Your task to perform on an android device: Add usb-c to usb-b to the cart on ebay, then select checkout. Image 0: 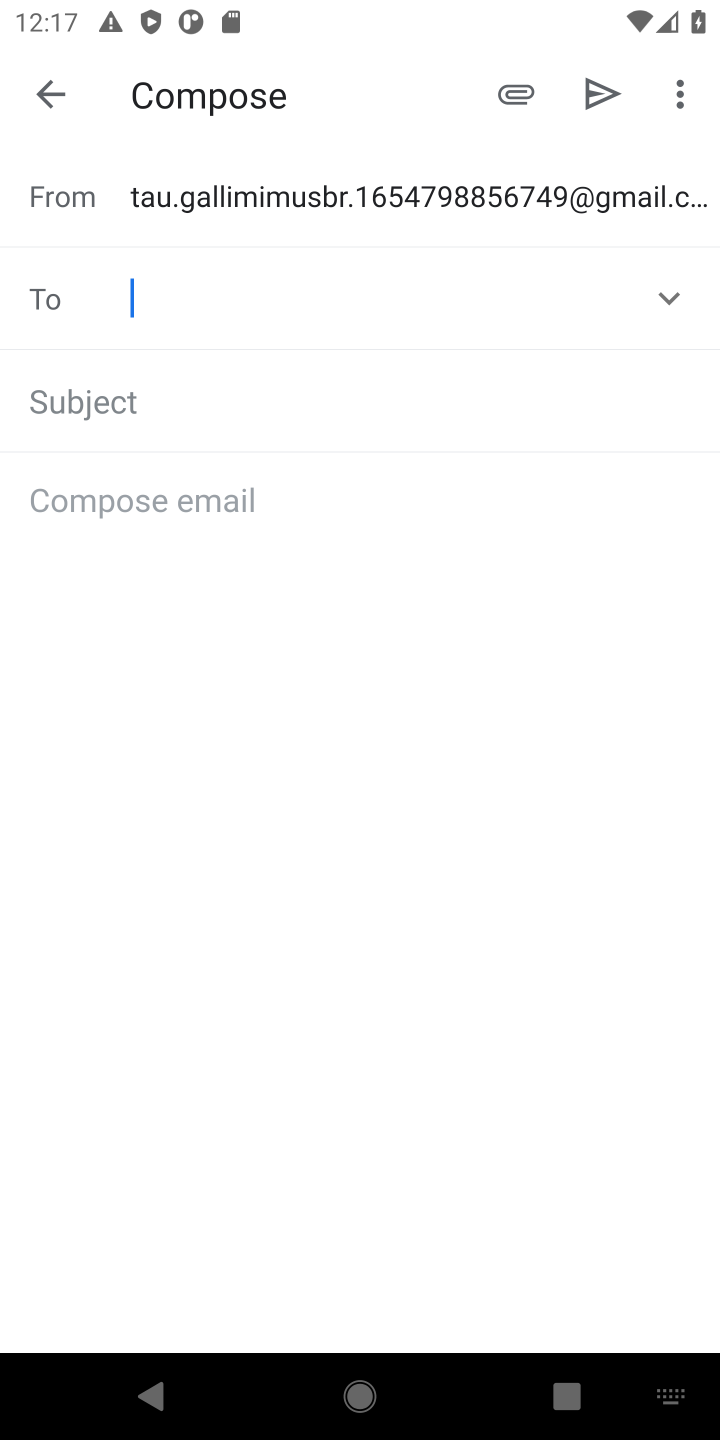
Step 0: press home button
Your task to perform on an android device: Add usb-c to usb-b to the cart on ebay, then select checkout. Image 1: 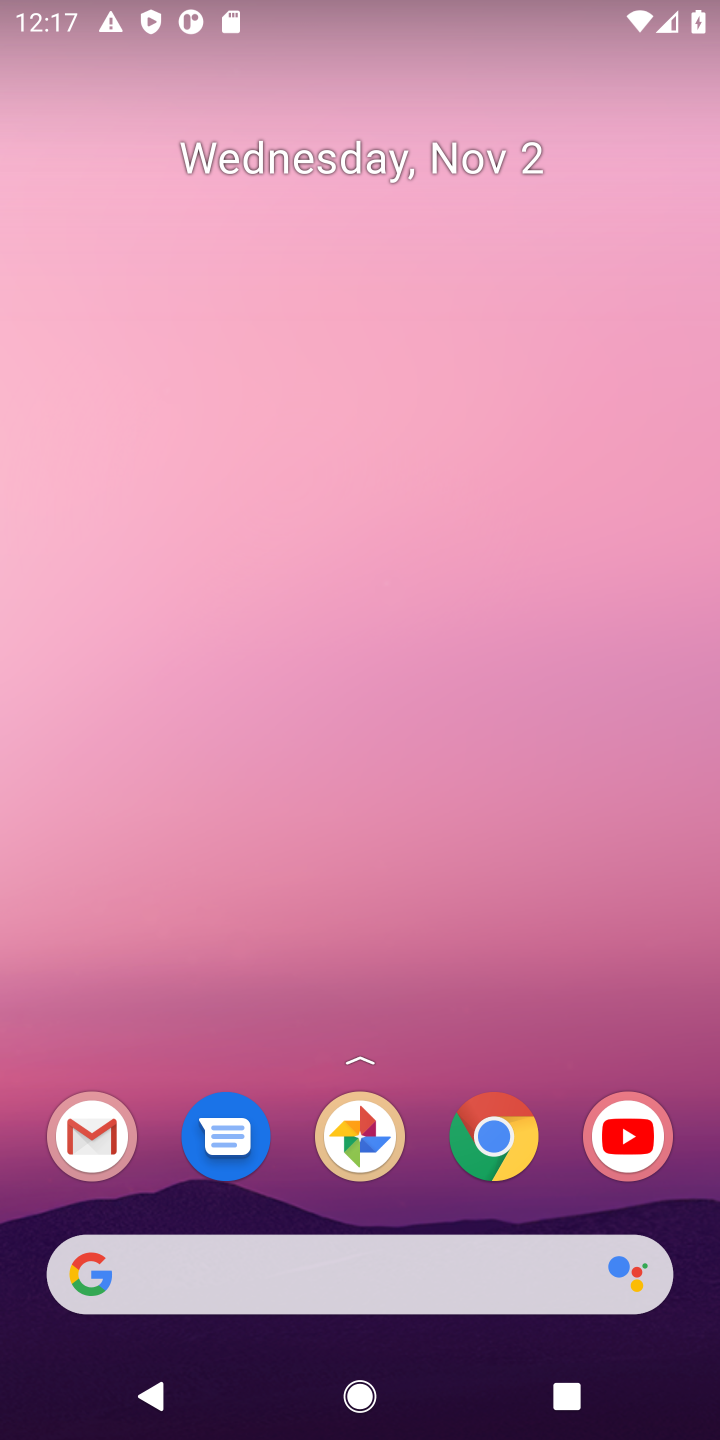
Step 1: click (502, 1140)
Your task to perform on an android device: Add usb-c to usb-b to the cart on ebay, then select checkout. Image 2: 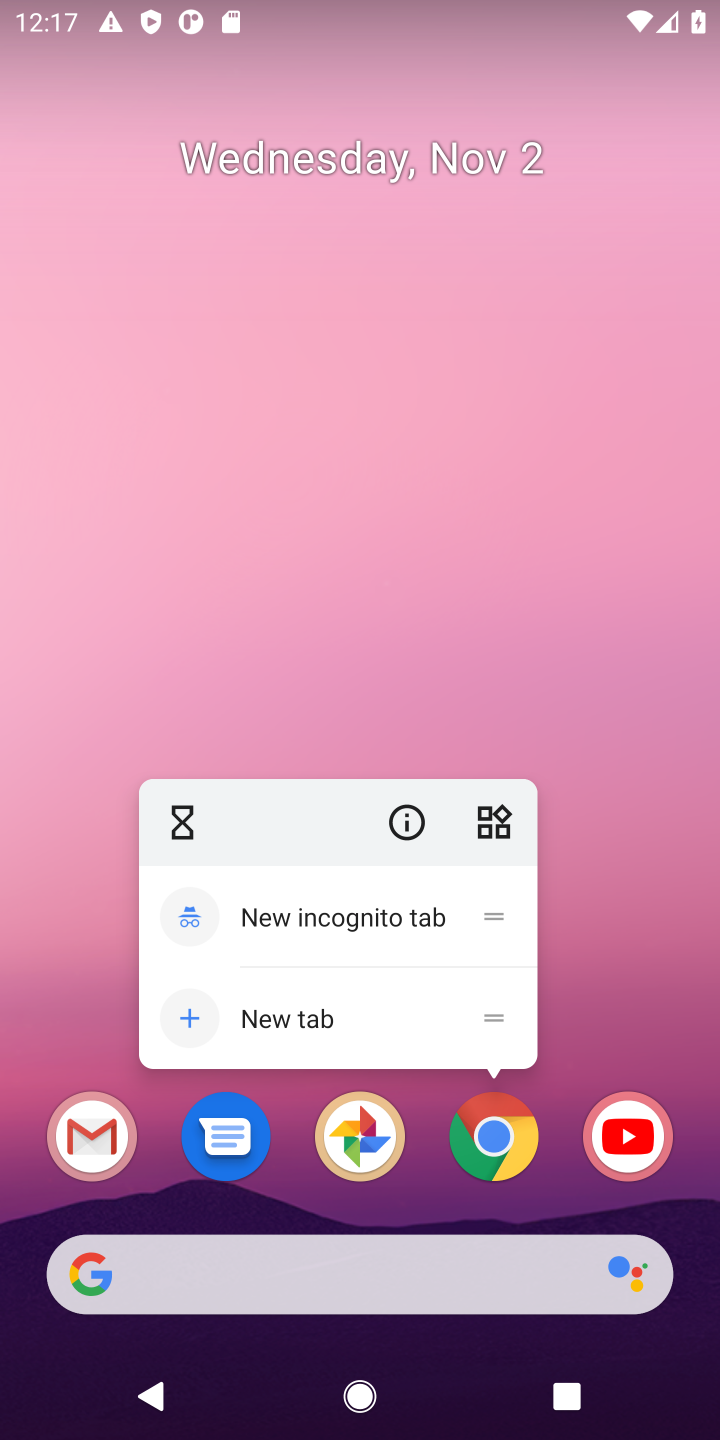
Step 2: click (486, 1156)
Your task to perform on an android device: Add usb-c to usb-b to the cart on ebay, then select checkout. Image 3: 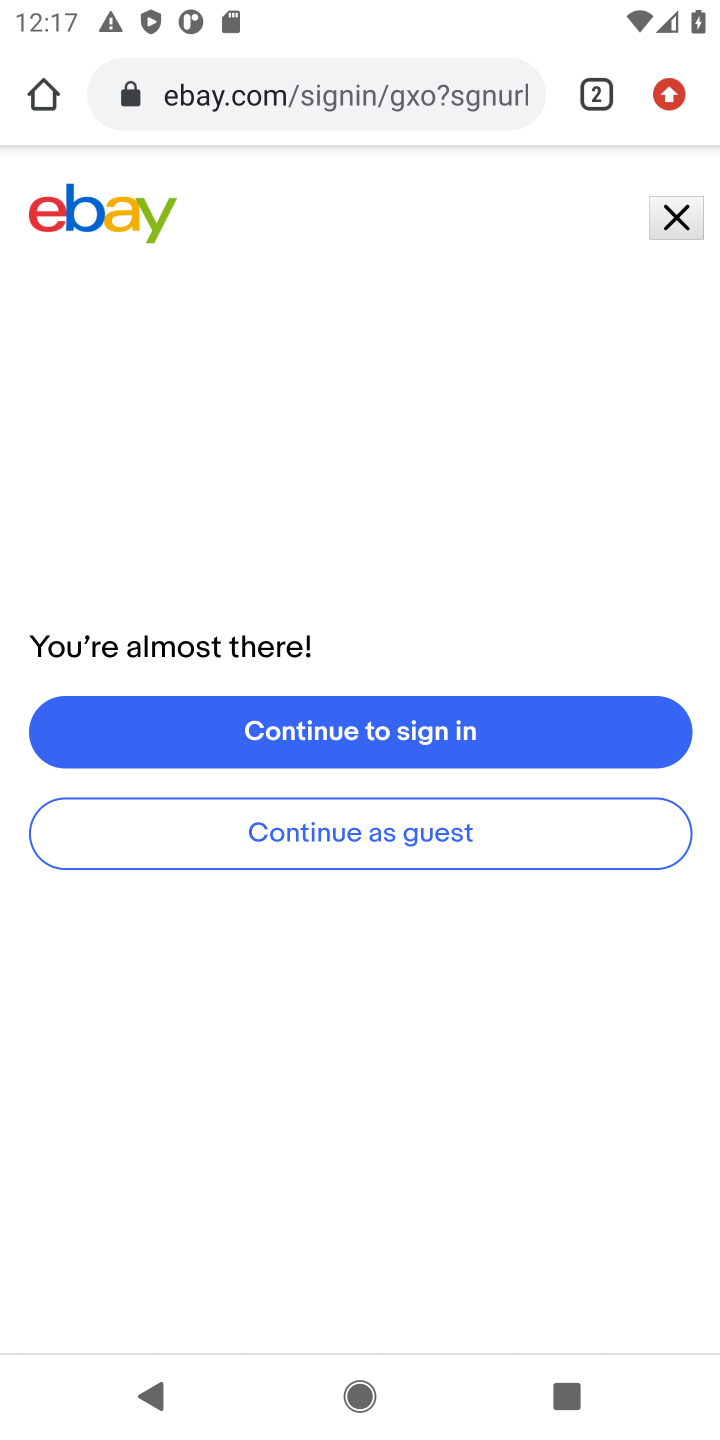
Step 3: click (319, 106)
Your task to perform on an android device: Add usb-c to usb-b to the cart on ebay, then select checkout. Image 4: 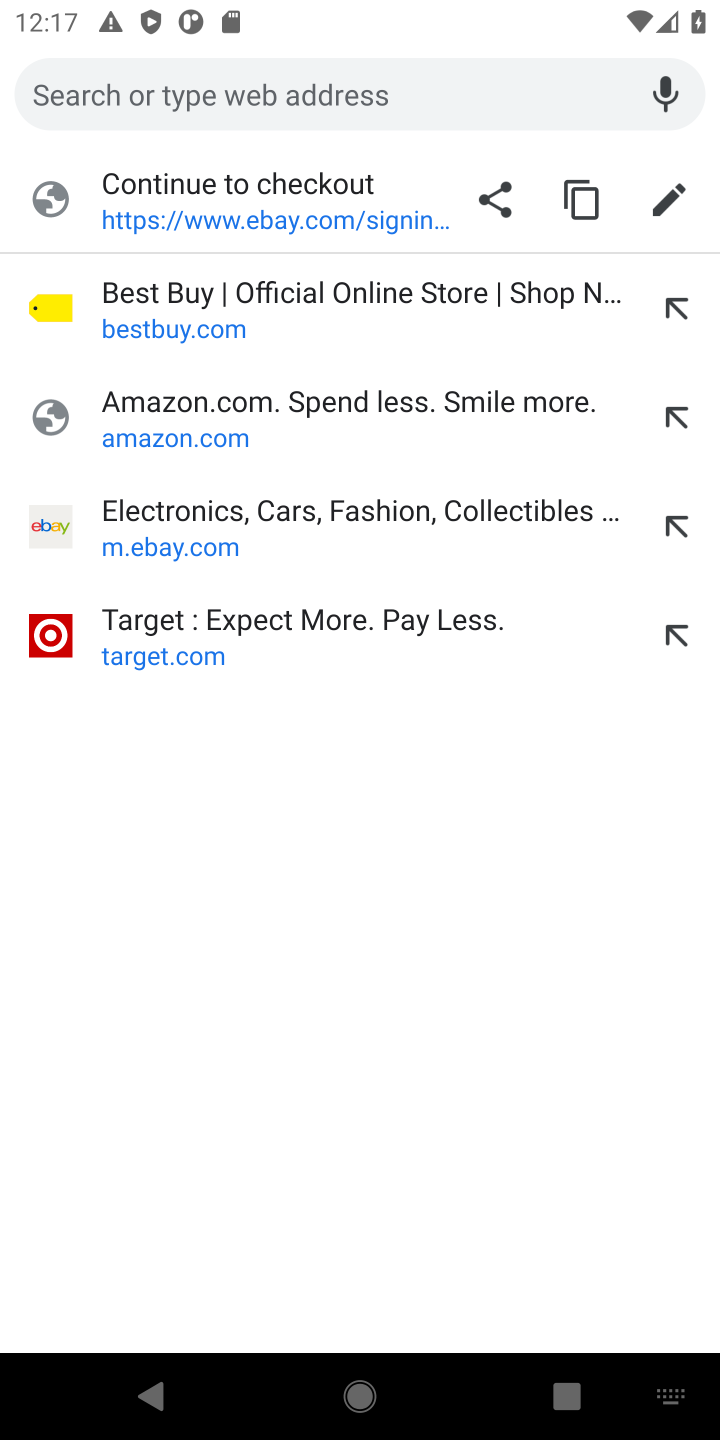
Step 4: type "ebay"
Your task to perform on an android device: Add usb-c to usb-b to the cart on ebay, then select checkout. Image 5: 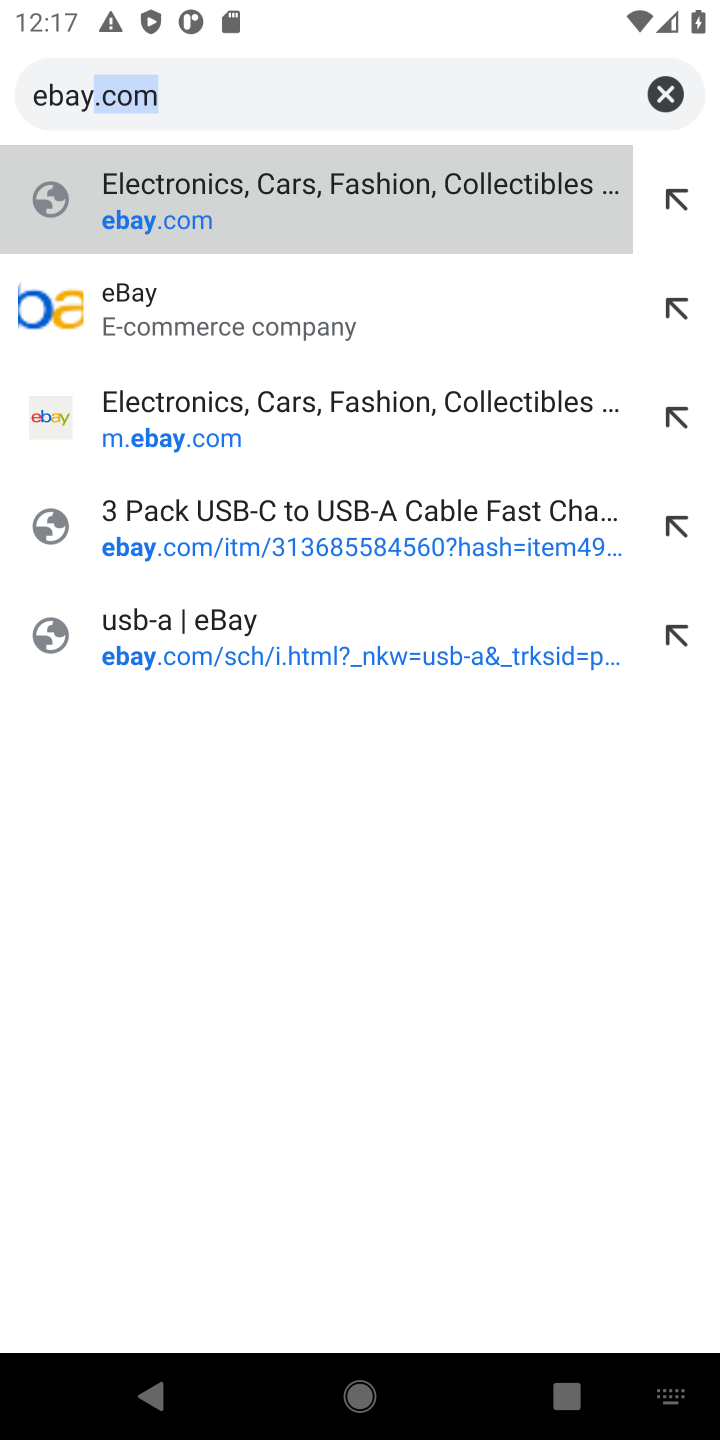
Step 5: type ""
Your task to perform on an android device: Add usb-c to usb-b to the cart on ebay, then select checkout. Image 6: 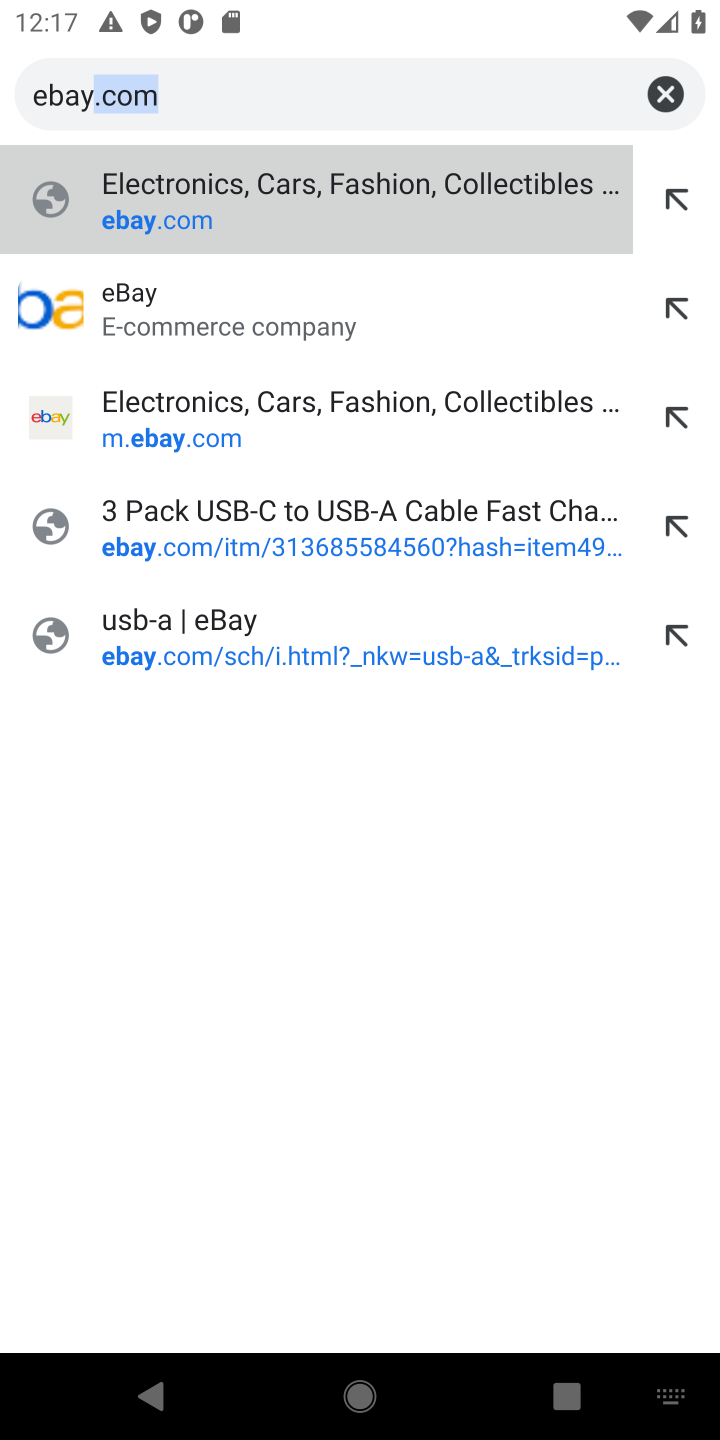
Step 6: click (208, 210)
Your task to perform on an android device: Add usb-c to usb-b to the cart on ebay, then select checkout. Image 7: 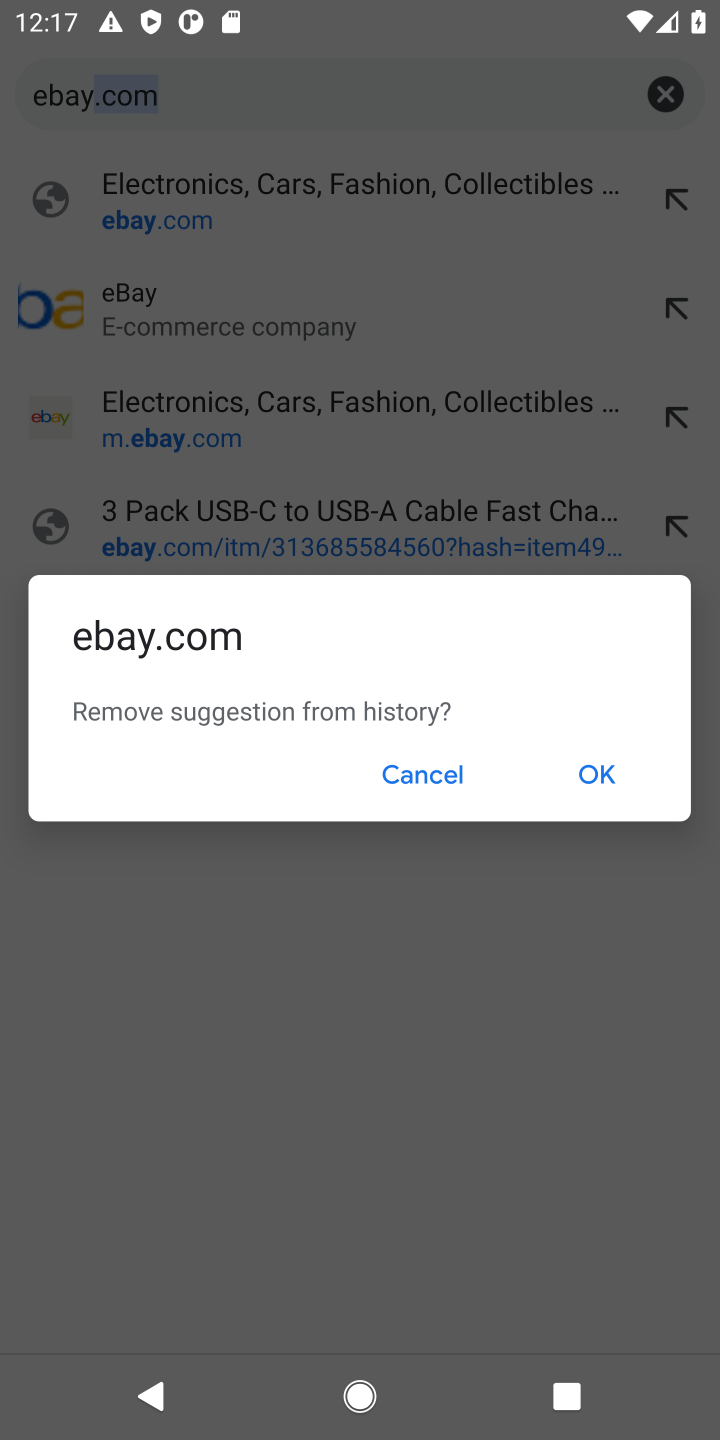
Step 7: click (614, 763)
Your task to perform on an android device: Add usb-c to usb-b to the cart on ebay, then select checkout. Image 8: 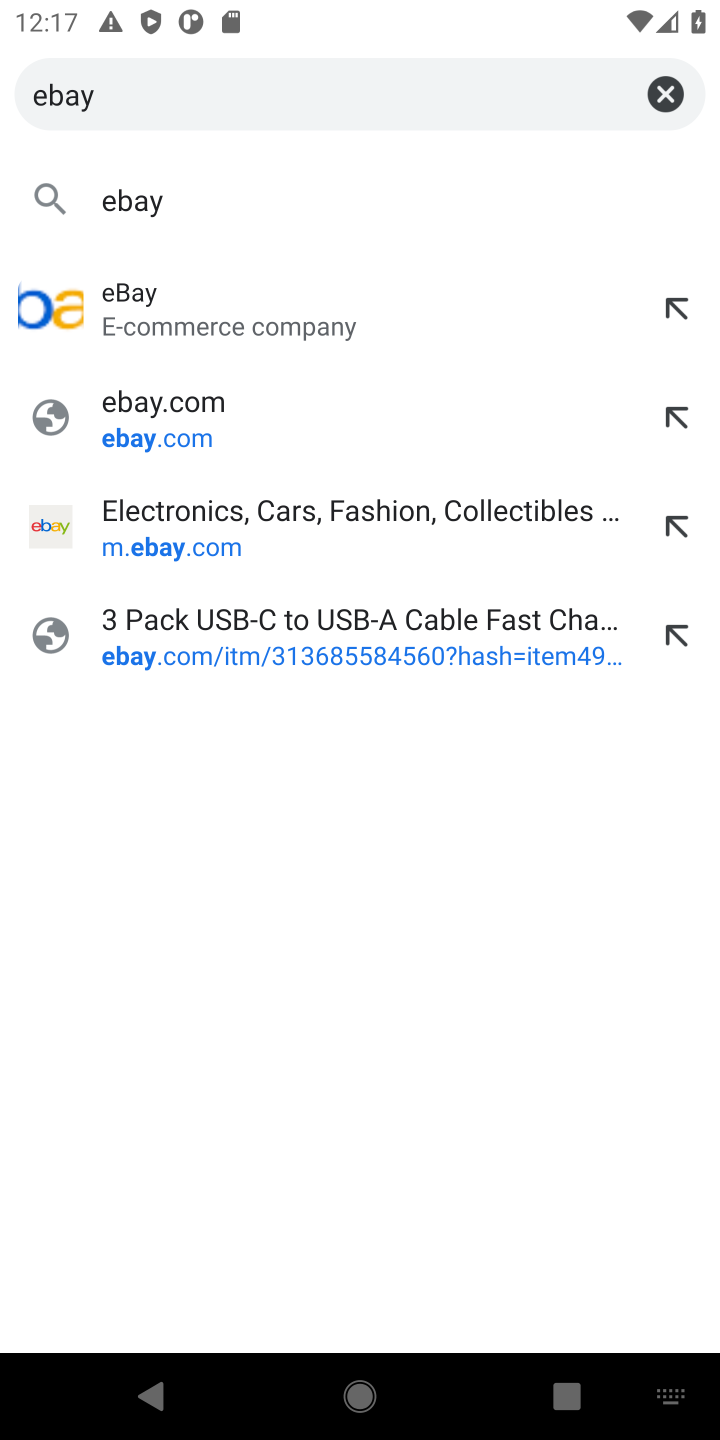
Step 8: click (207, 350)
Your task to perform on an android device: Add usb-c to usb-b to the cart on ebay, then select checkout. Image 9: 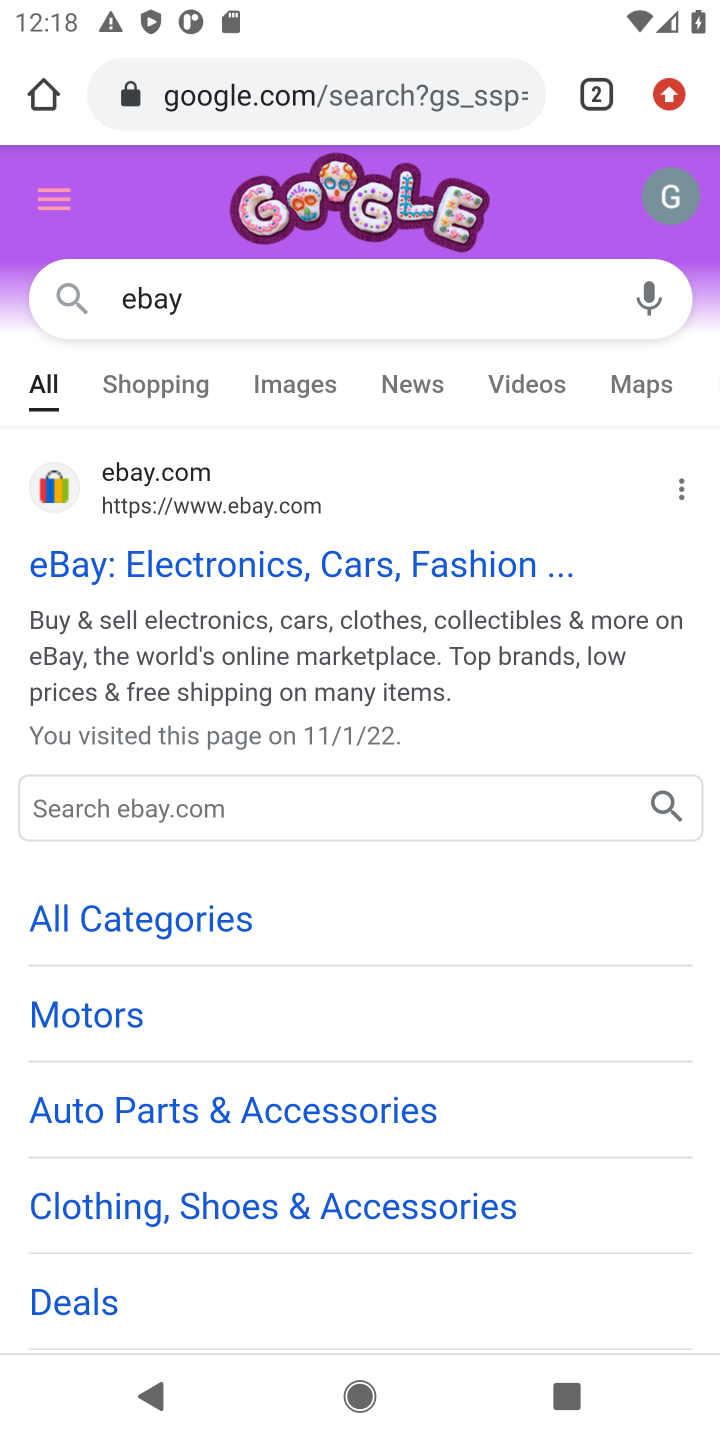
Step 9: click (174, 552)
Your task to perform on an android device: Add usb-c to usb-b to the cart on ebay, then select checkout. Image 10: 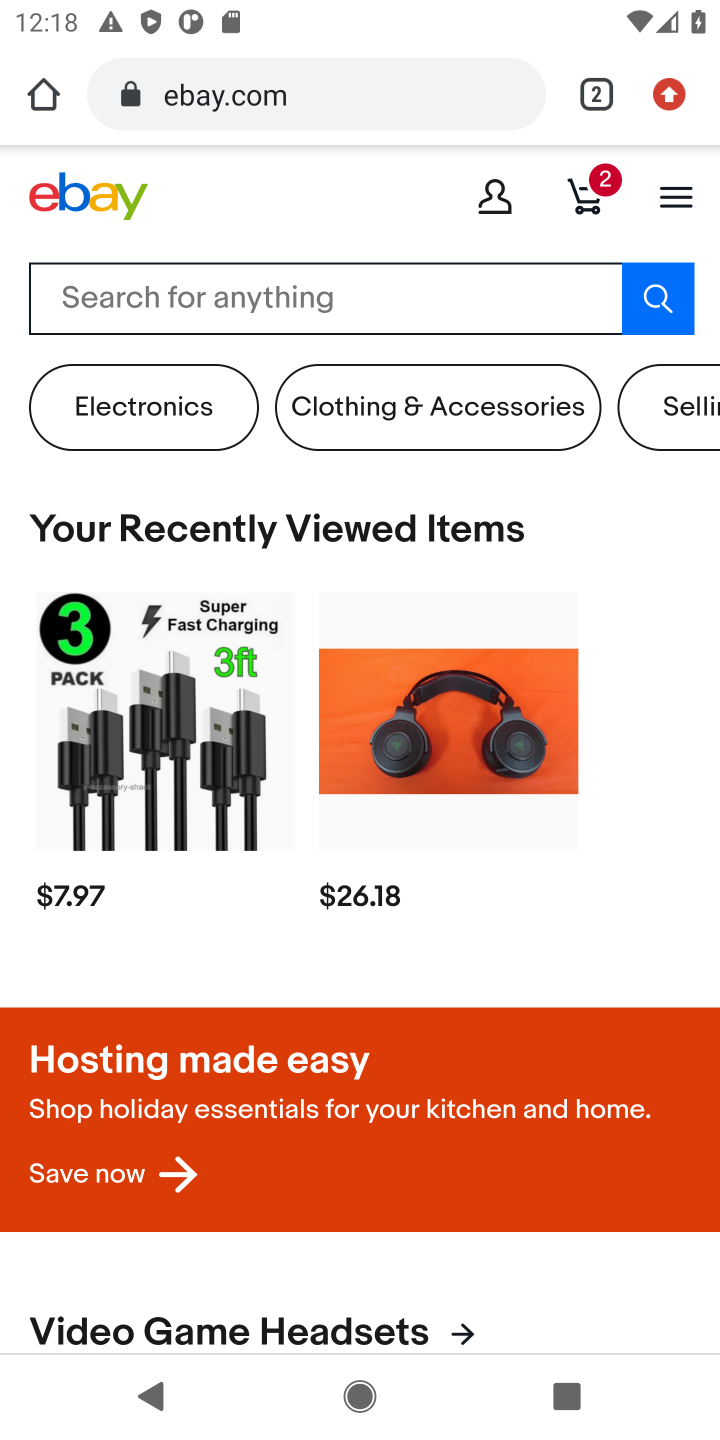
Step 10: click (336, 306)
Your task to perform on an android device: Add usb-c to usb-b to the cart on ebay, then select checkout. Image 11: 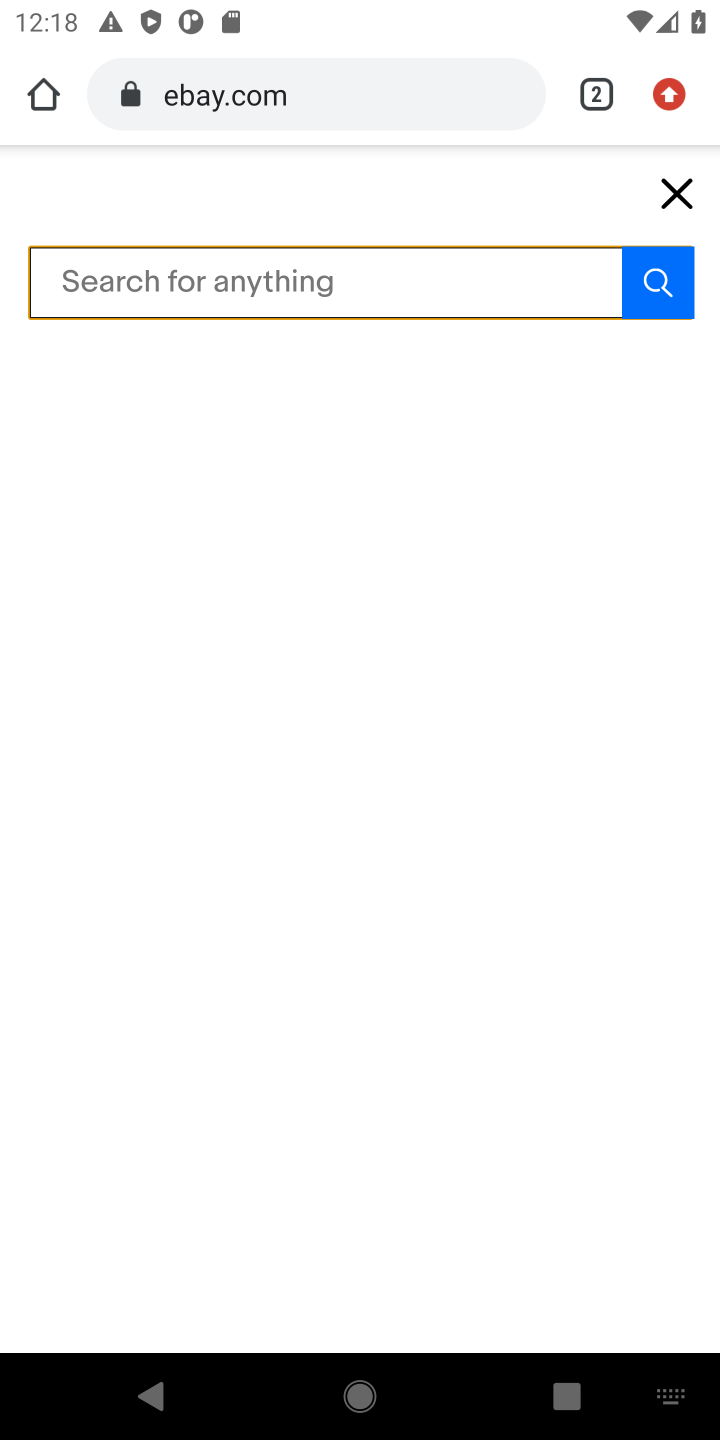
Step 11: type "usb-c to usb-b"
Your task to perform on an android device: Add usb-c to usb-b to the cart on ebay, then select checkout. Image 12: 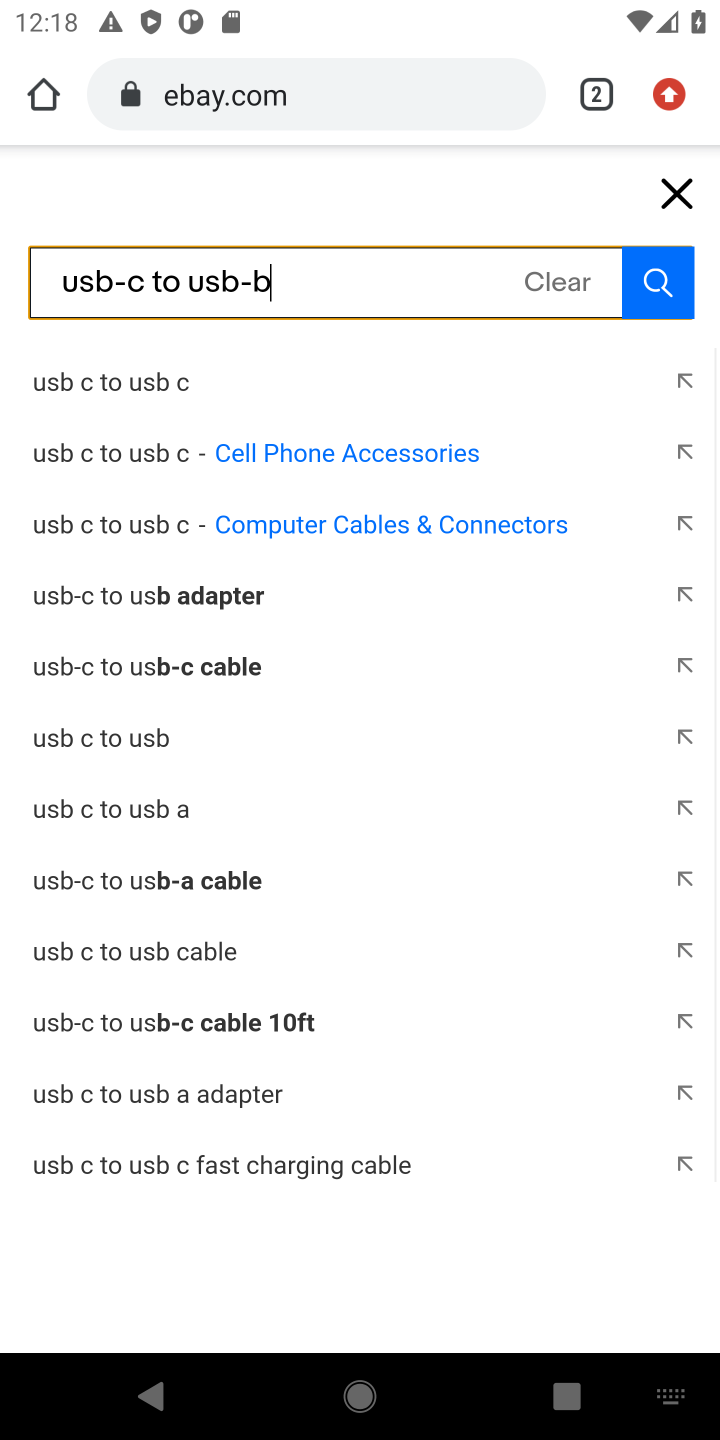
Step 12: type ""
Your task to perform on an android device: Add usb-c to usb-b to the cart on ebay, then select checkout. Image 13: 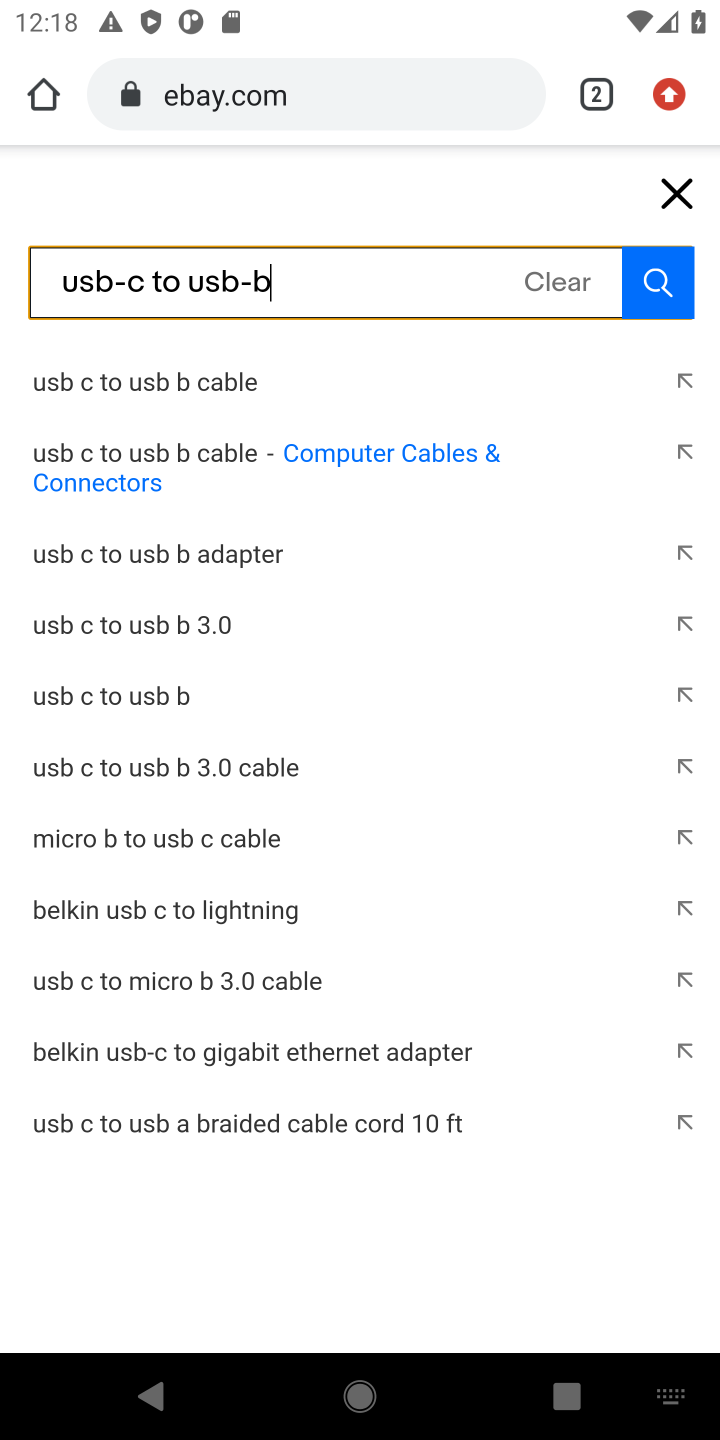
Step 13: click (666, 287)
Your task to perform on an android device: Add usb-c to usb-b to the cart on ebay, then select checkout. Image 14: 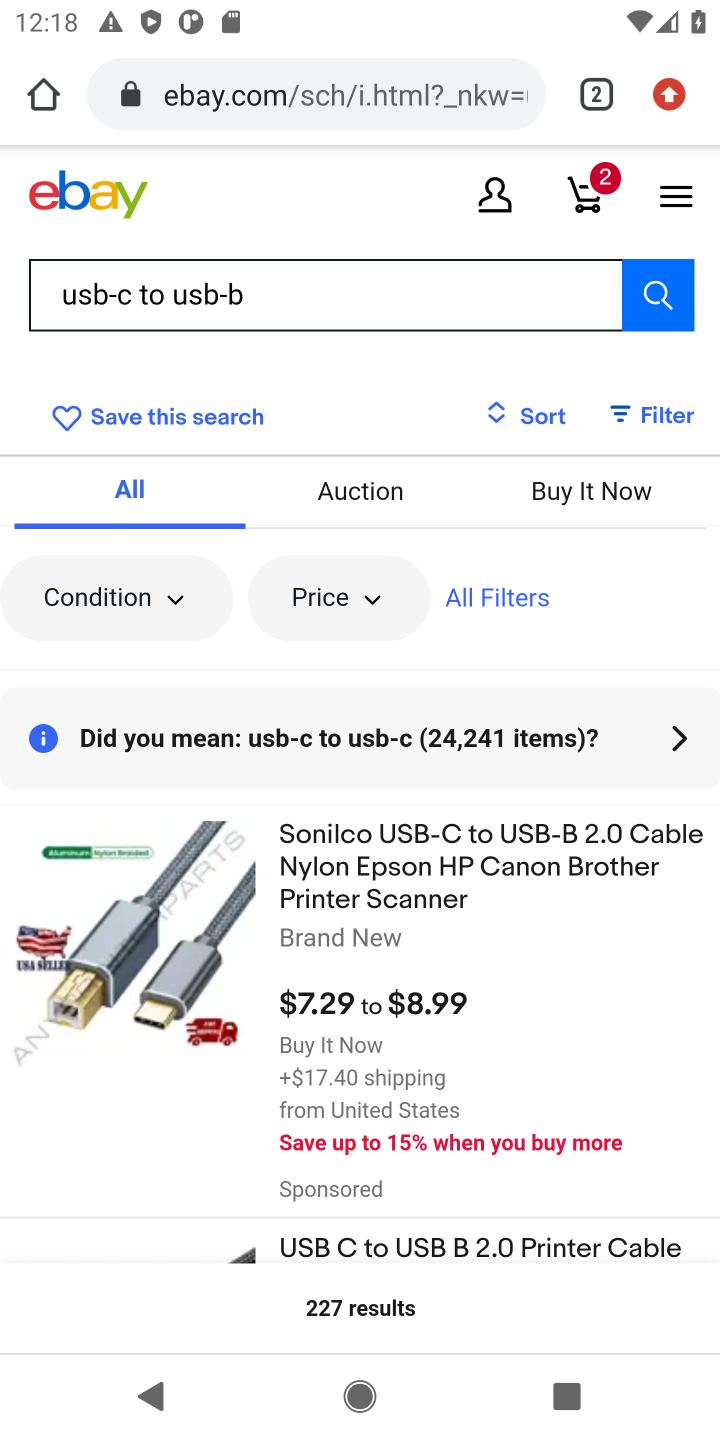
Step 14: click (307, 875)
Your task to perform on an android device: Add usb-c to usb-b to the cart on ebay, then select checkout. Image 15: 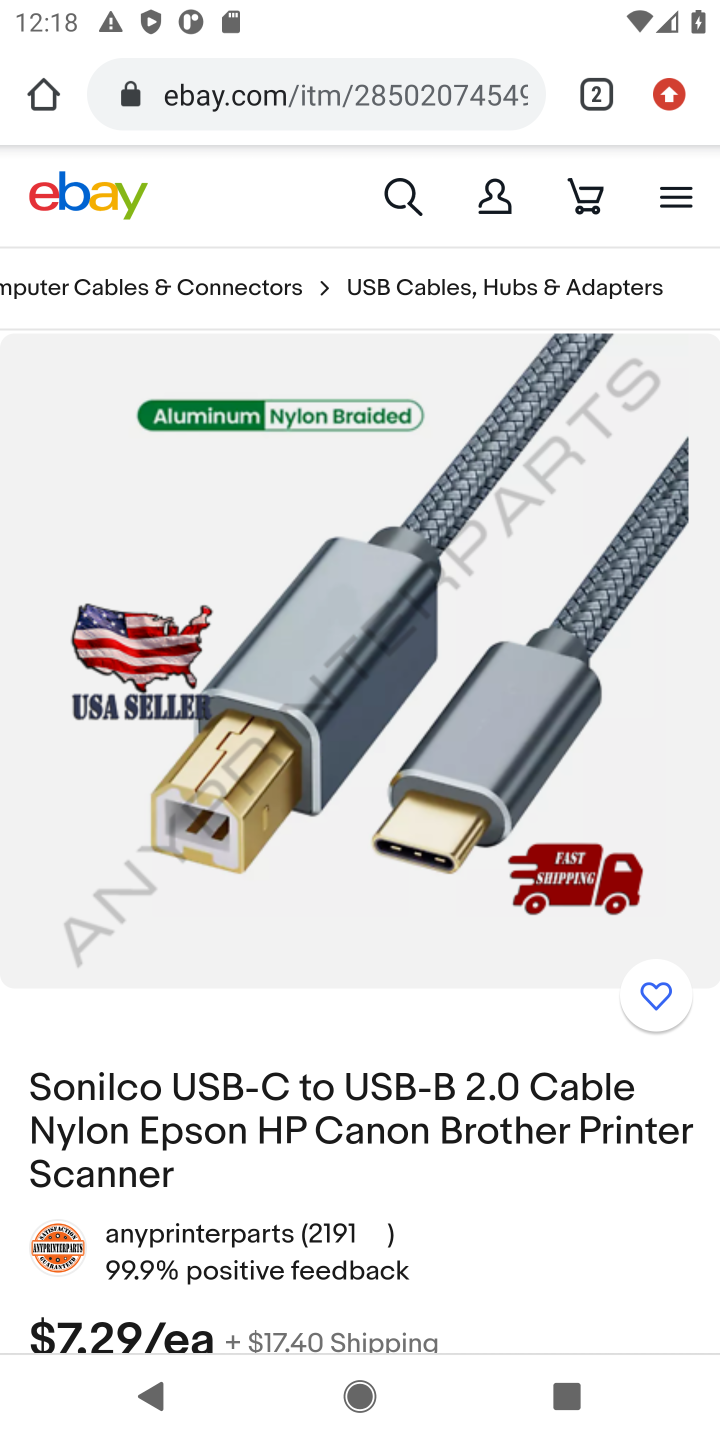
Step 15: drag from (368, 982) to (425, 519)
Your task to perform on an android device: Add usb-c to usb-b to the cart on ebay, then select checkout. Image 16: 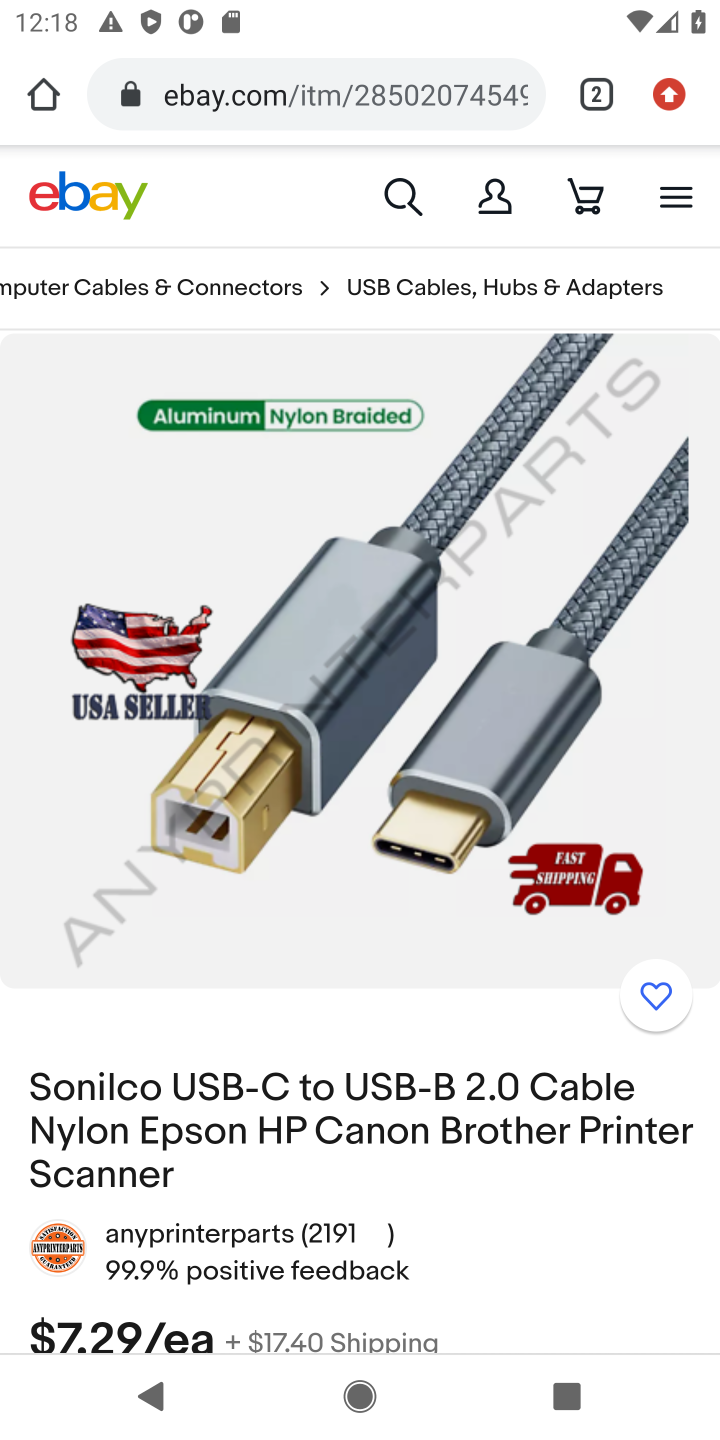
Step 16: drag from (458, 827) to (510, 430)
Your task to perform on an android device: Add usb-c to usb-b to the cart on ebay, then select checkout. Image 17: 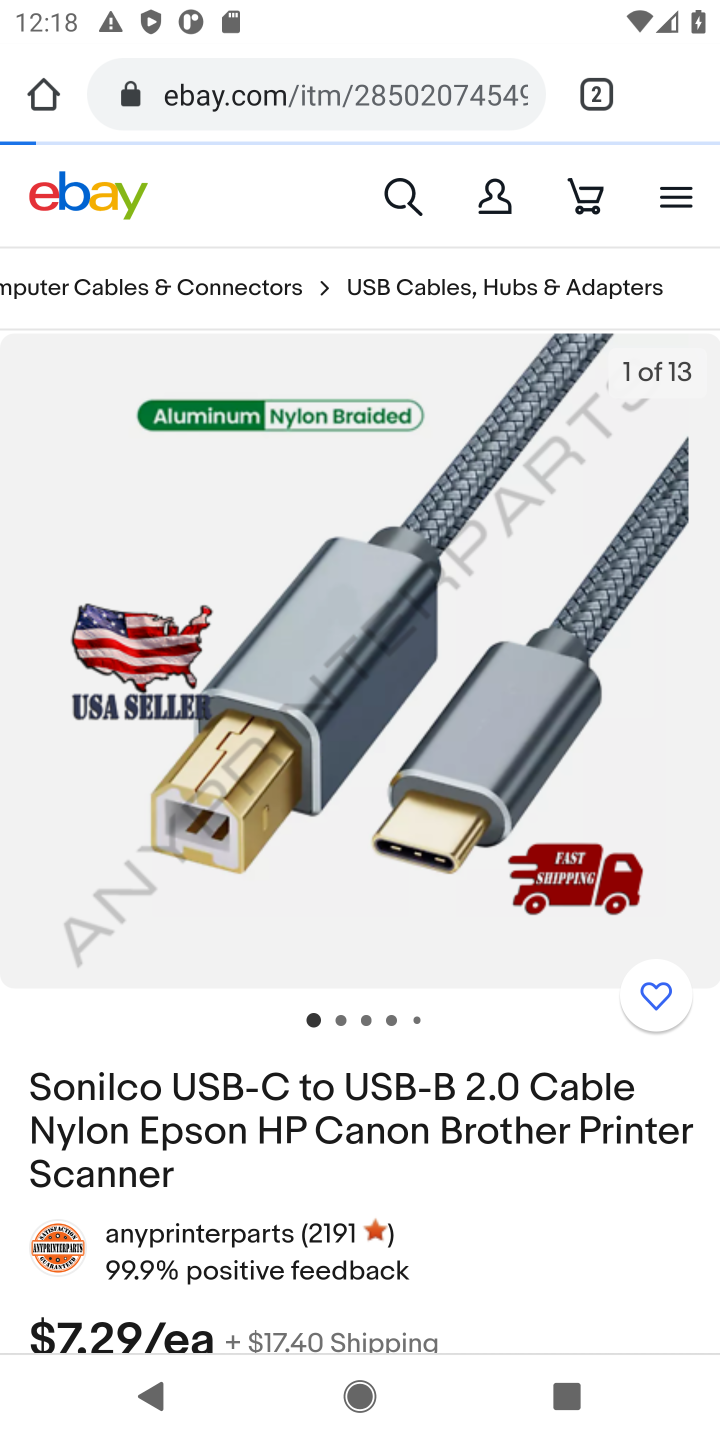
Step 17: drag from (525, 1013) to (566, 468)
Your task to perform on an android device: Add usb-c to usb-b to the cart on ebay, then select checkout. Image 18: 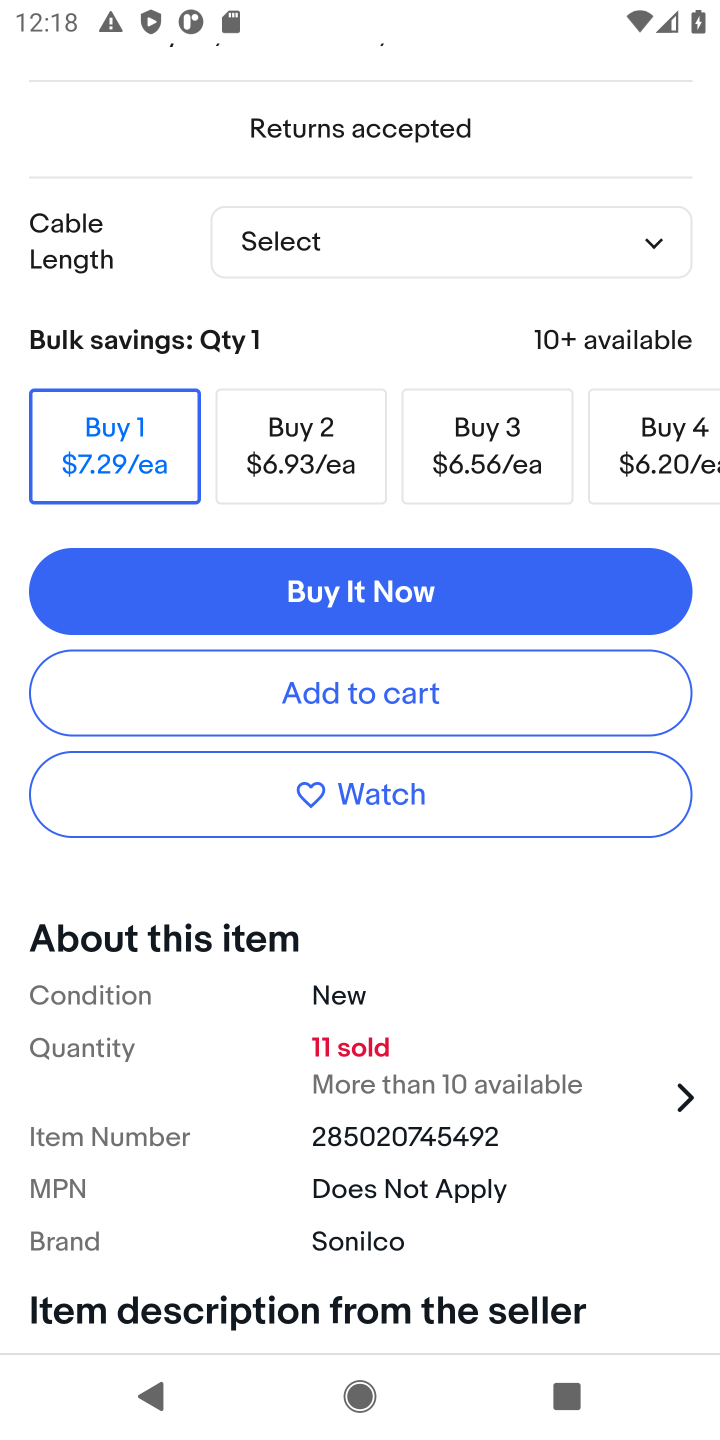
Step 18: click (346, 713)
Your task to perform on an android device: Add usb-c to usb-b to the cart on ebay, then select checkout. Image 19: 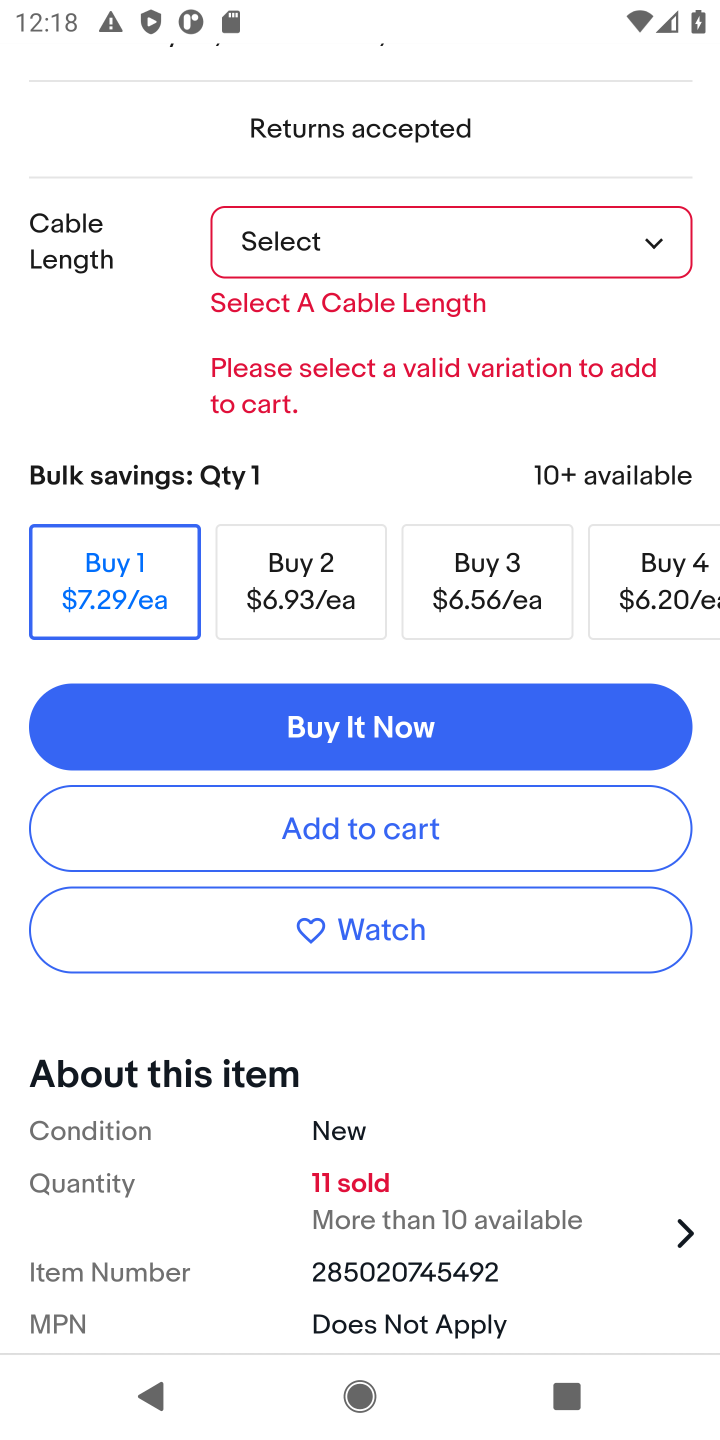
Step 19: click (340, 799)
Your task to perform on an android device: Add usb-c to usb-b to the cart on ebay, then select checkout. Image 20: 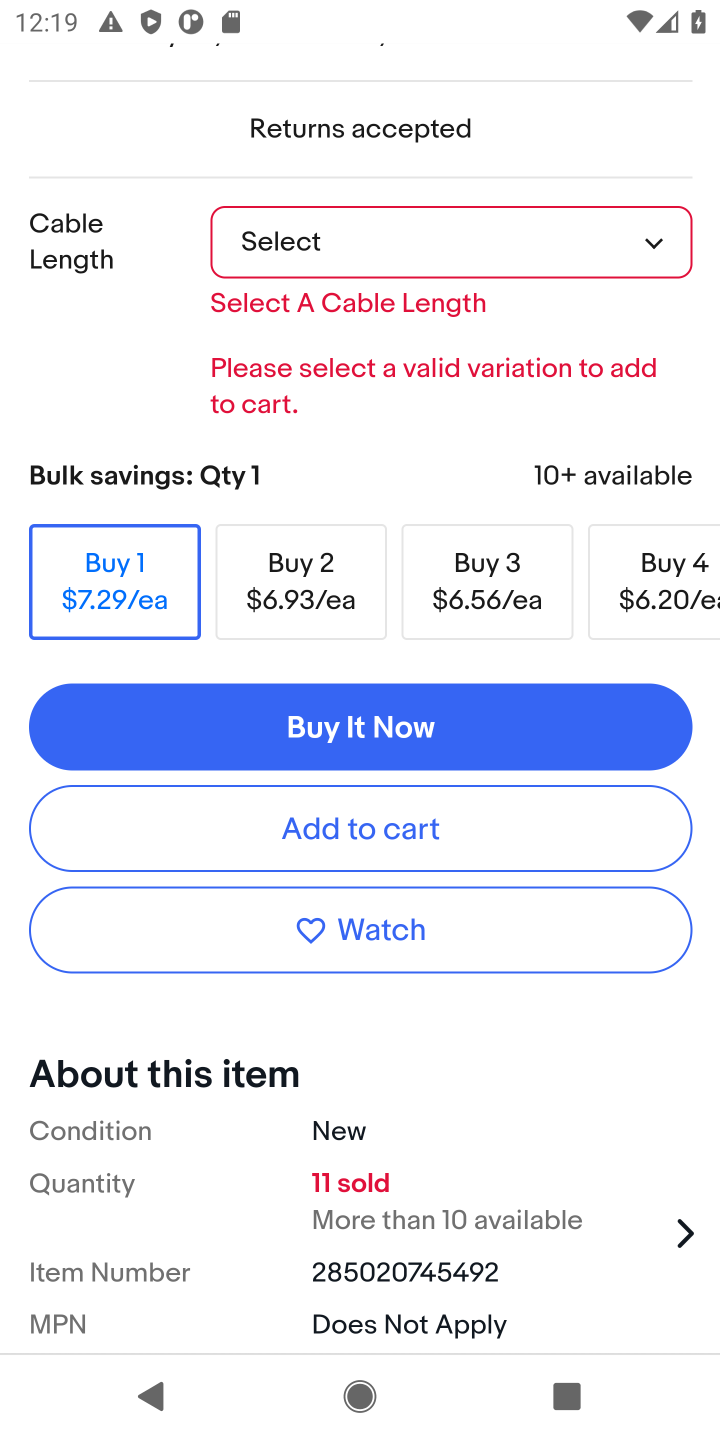
Step 20: click (340, 837)
Your task to perform on an android device: Add usb-c to usb-b to the cart on ebay, then select checkout. Image 21: 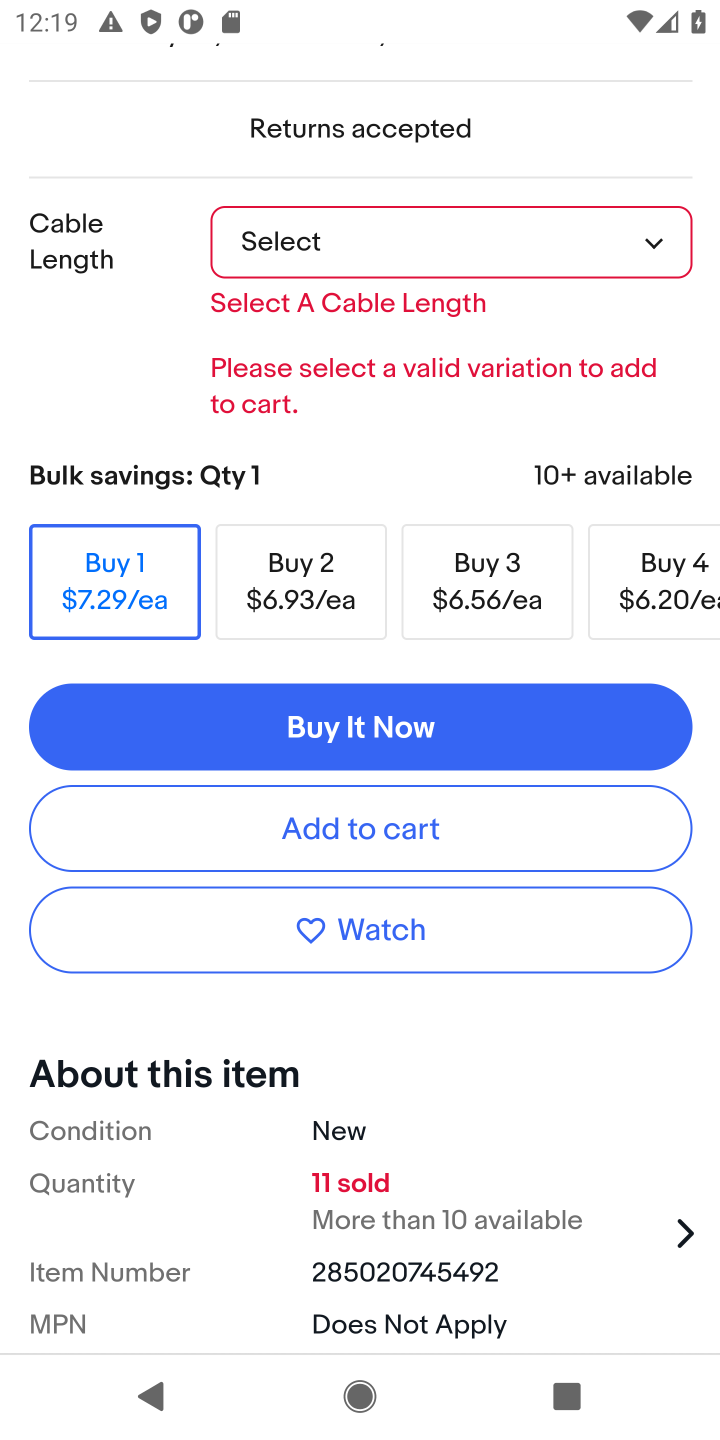
Step 21: click (340, 837)
Your task to perform on an android device: Add usb-c to usb-b to the cart on ebay, then select checkout. Image 22: 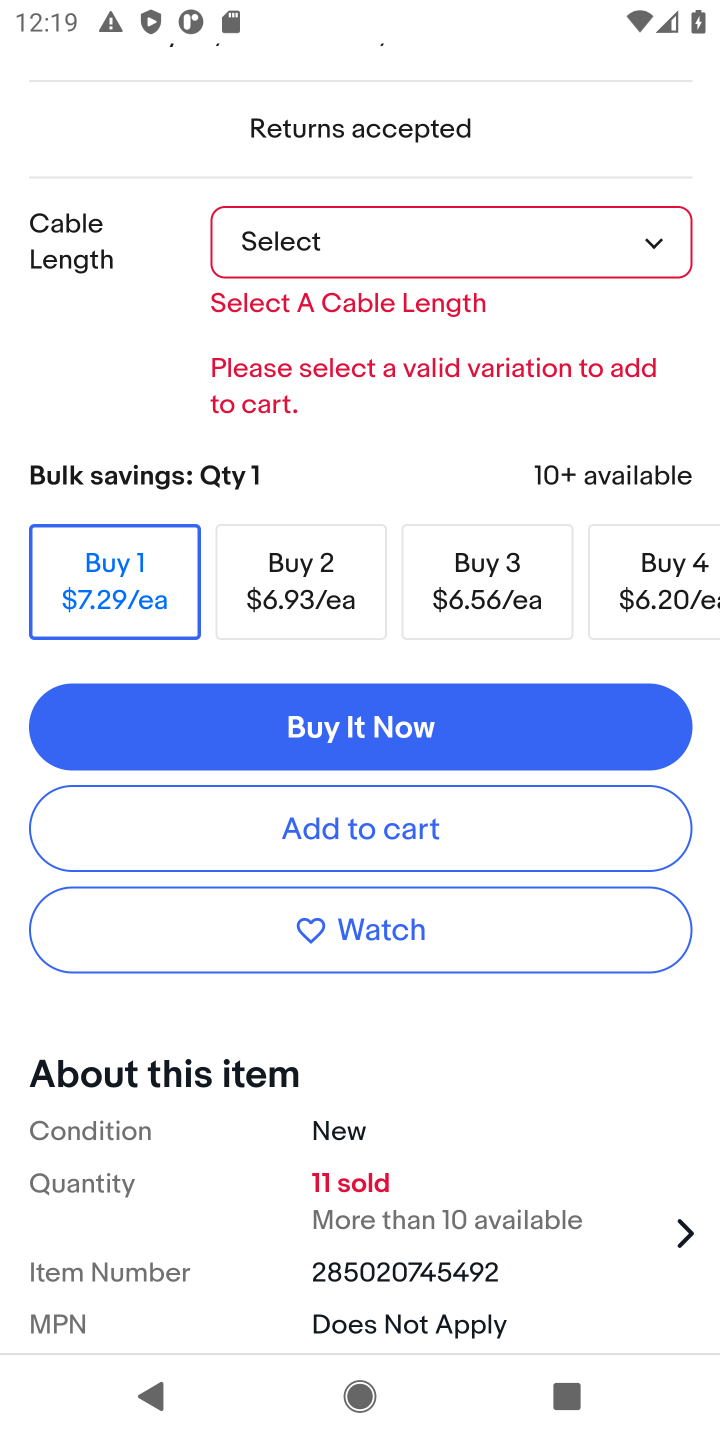
Step 22: click (462, 808)
Your task to perform on an android device: Add usb-c to usb-b to the cart on ebay, then select checkout. Image 23: 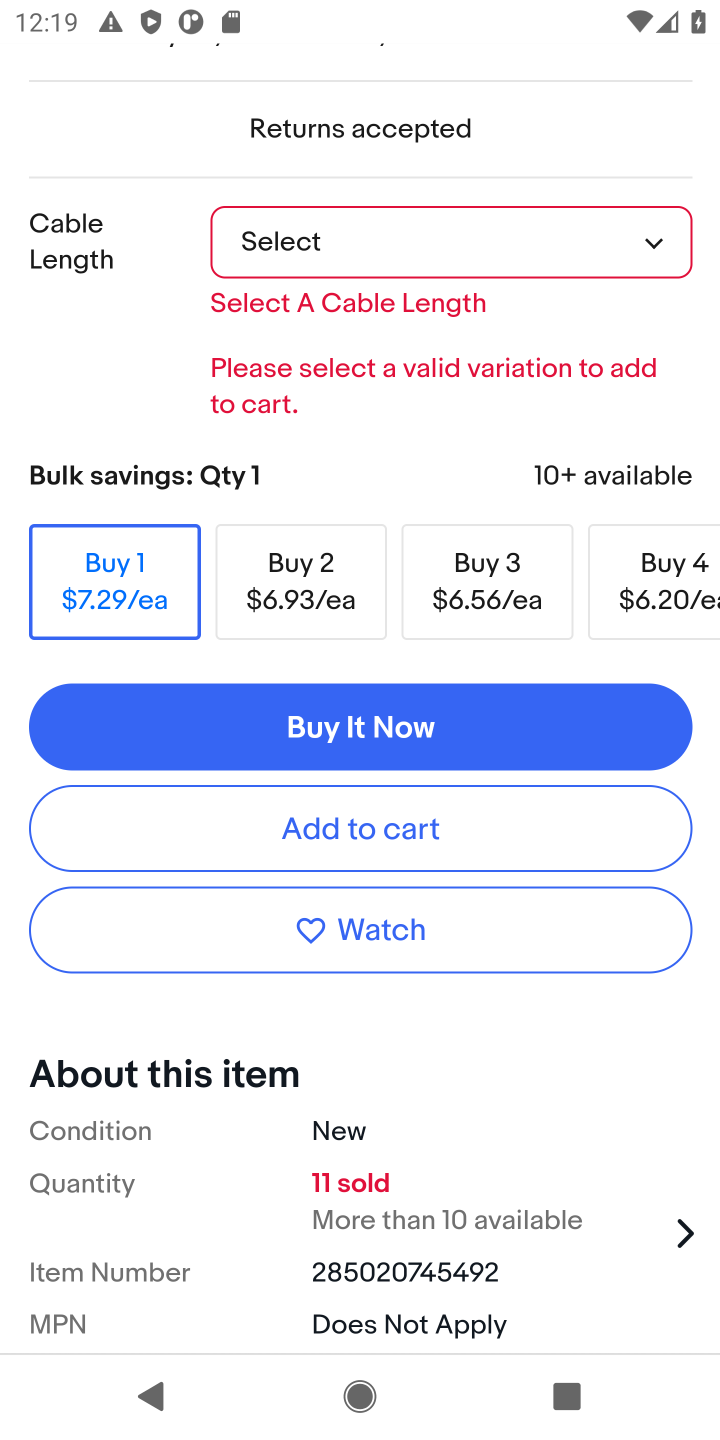
Step 23: click (452, 831)
Your task to perform on an android device: Add usb-c to usb-b to the cart on ebay, then select checkout. Image 24: 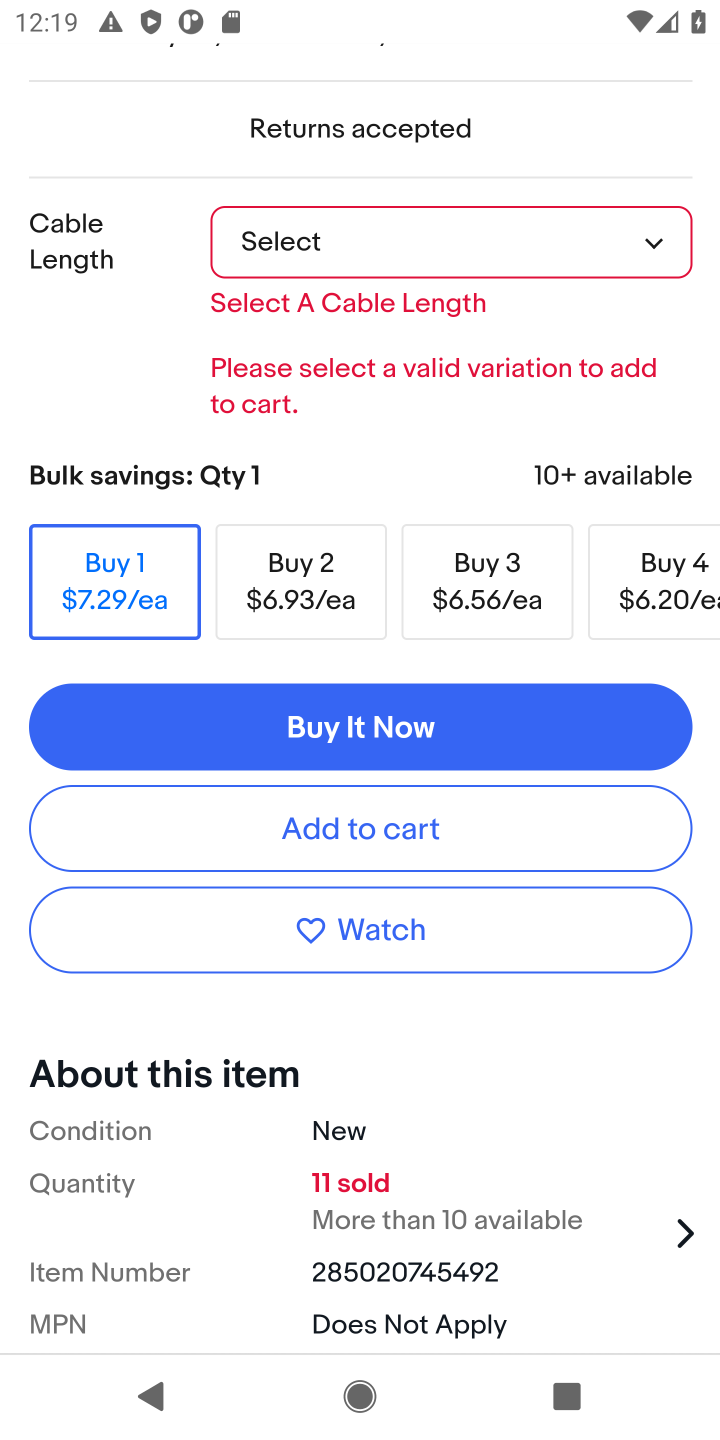
Step 24: click (533, 258)
Your task to perform on an android device: Add usb-c to usb-b to the cart on ebay, then select checkout. Image 25: 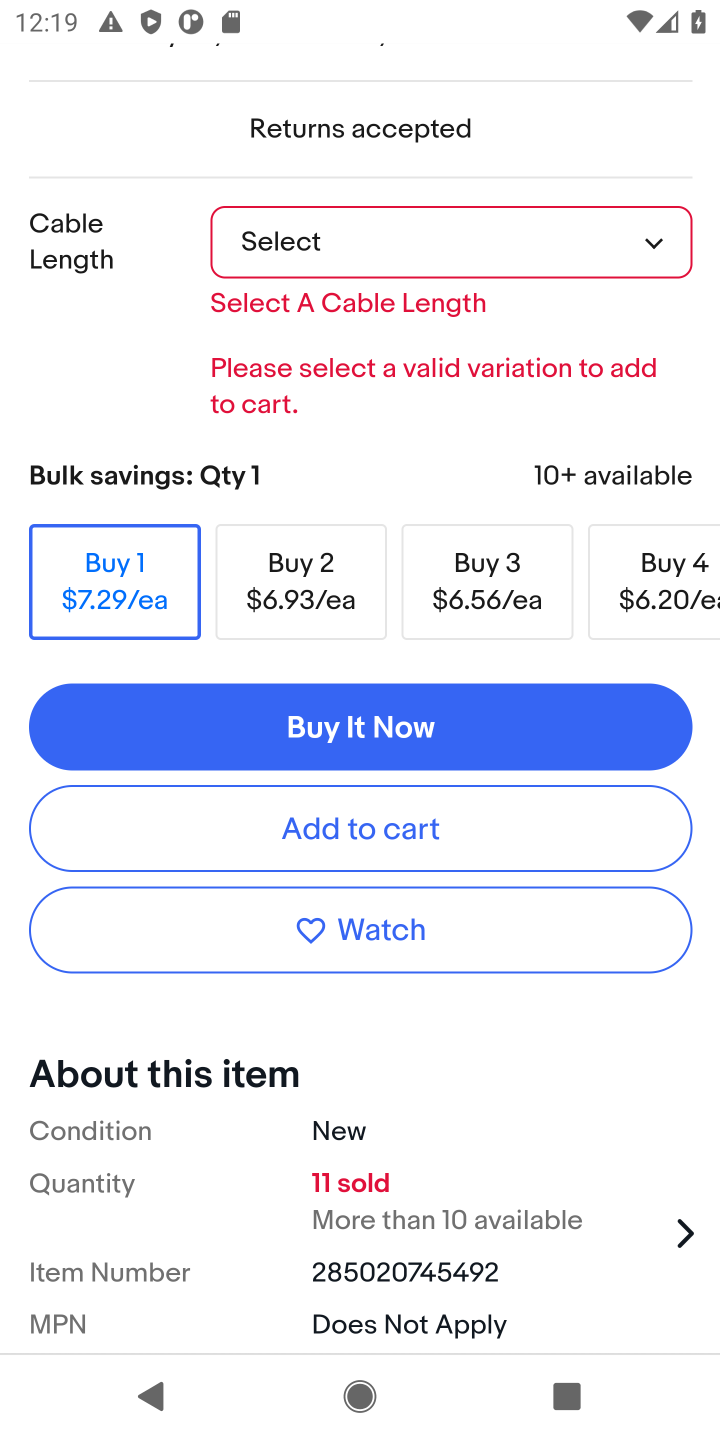
Step 25: click (533, 258)
Your task to perform on an android device: Add usb-c to usb-b to the cart on ebay, then select checkout. Image 26: 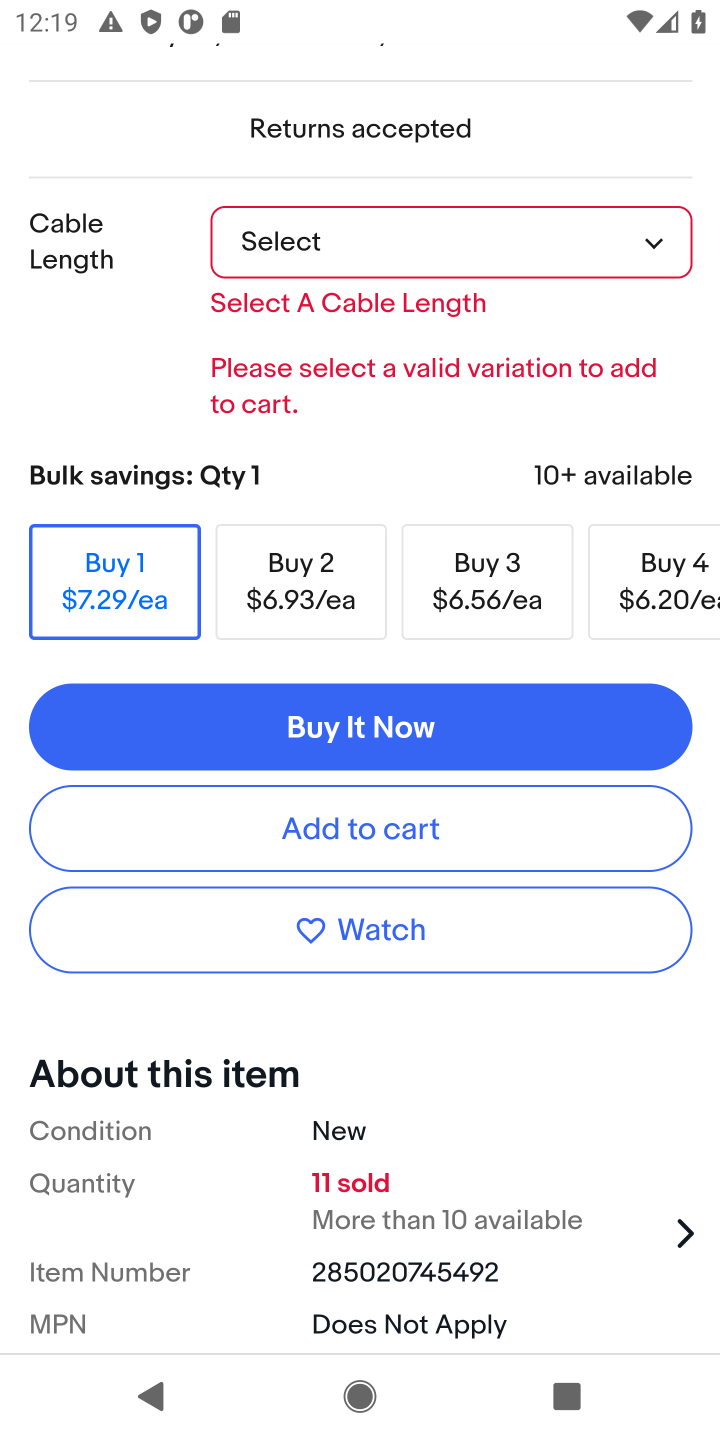
Step 26: click (609, 247)
Your task to perform on an android device: Add usb-c to usb-b to the cart on ebay, then select checkout. Image 27: 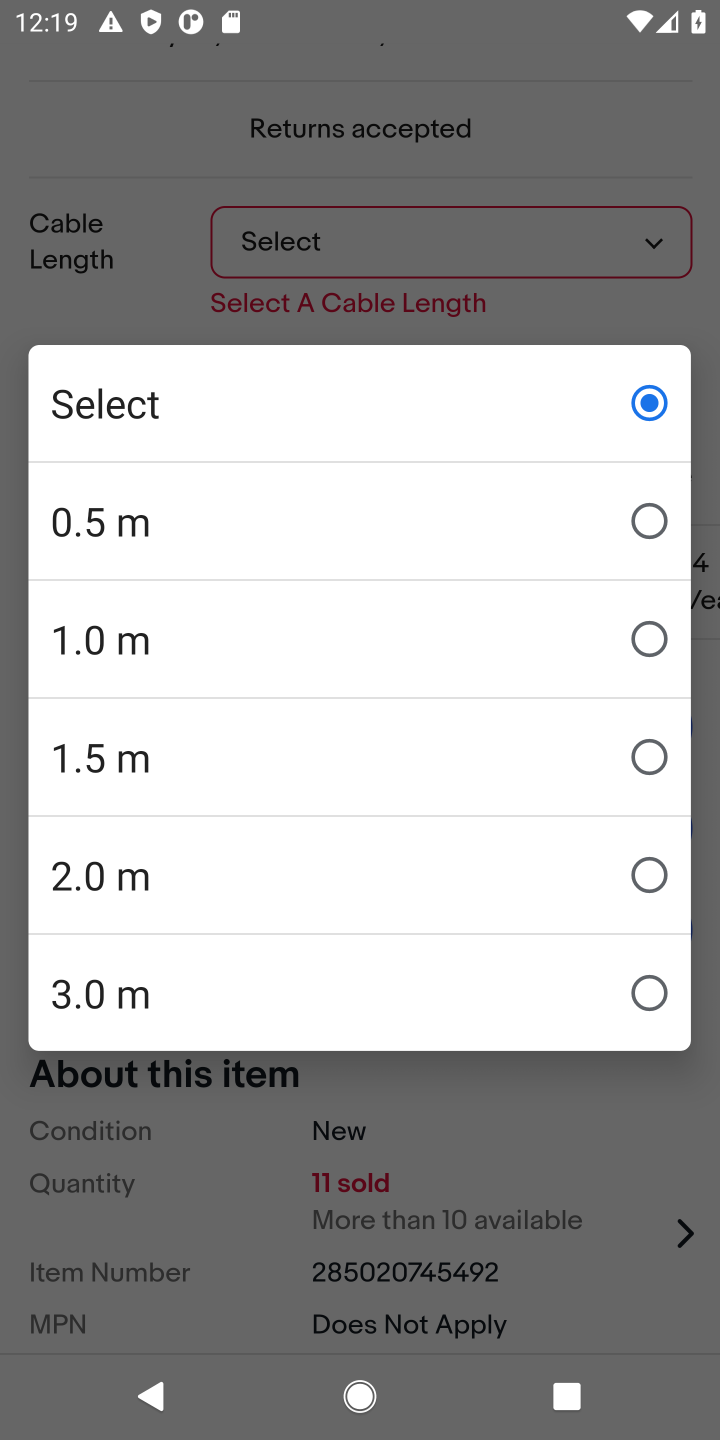
Step 27: click (340, 538)
Your task to perform on an android device: Add usb-c to usb-b to the cart on ebay, then select checkout. Image 28: 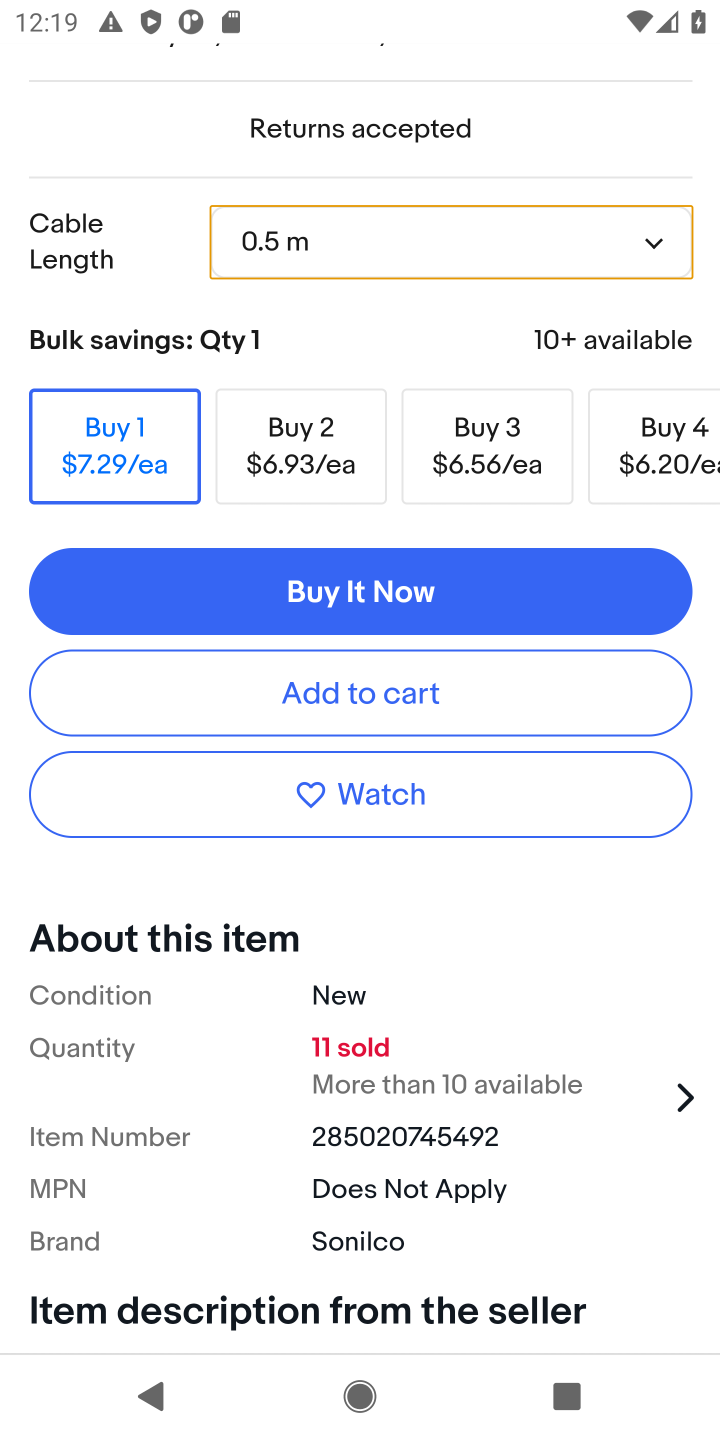
Step 28: click (333, 690)
Your task to perform on an android device: Add usb-c to usb-b to the cart on ebay, then select checkout. Image 29: 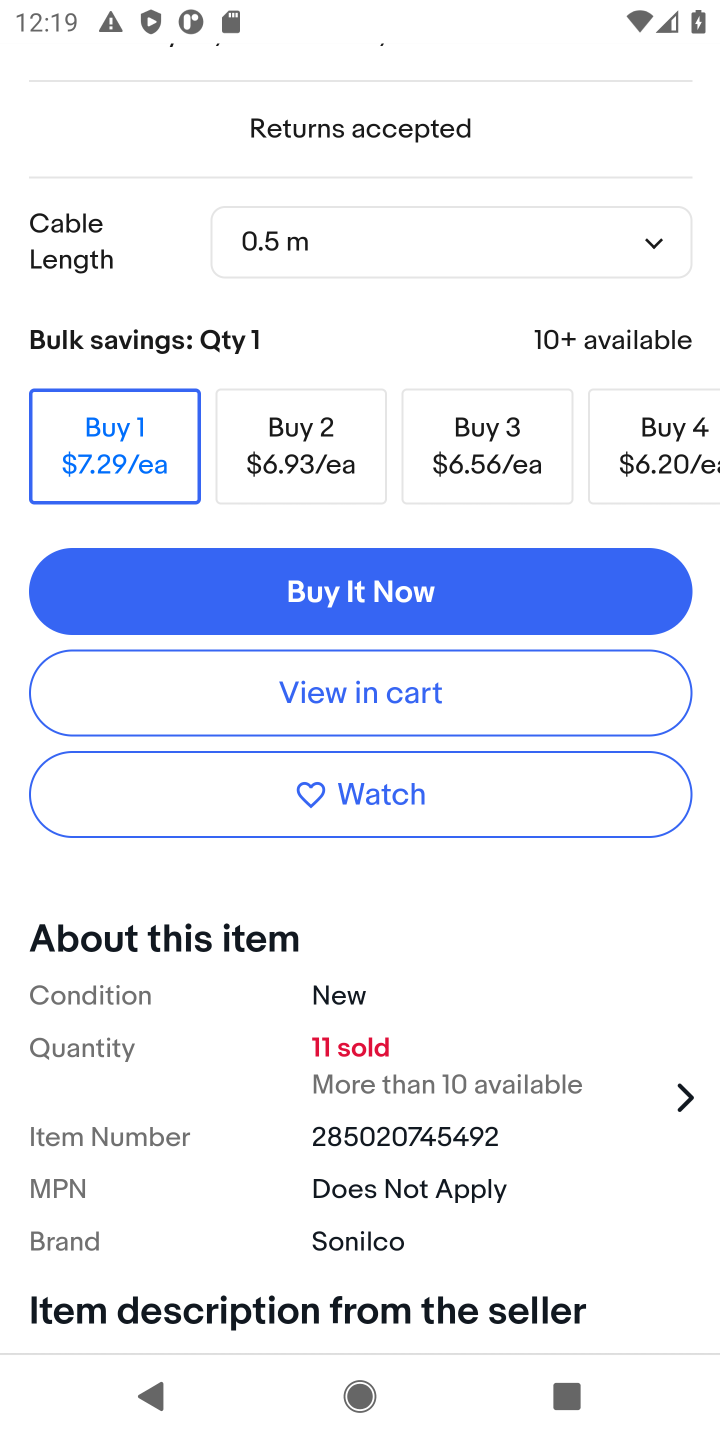
Step 29: click (333, 690)
Your task to perform on an android device: Add usb-c to usb-b to the cart on ebay, then select checkout. Image 30: 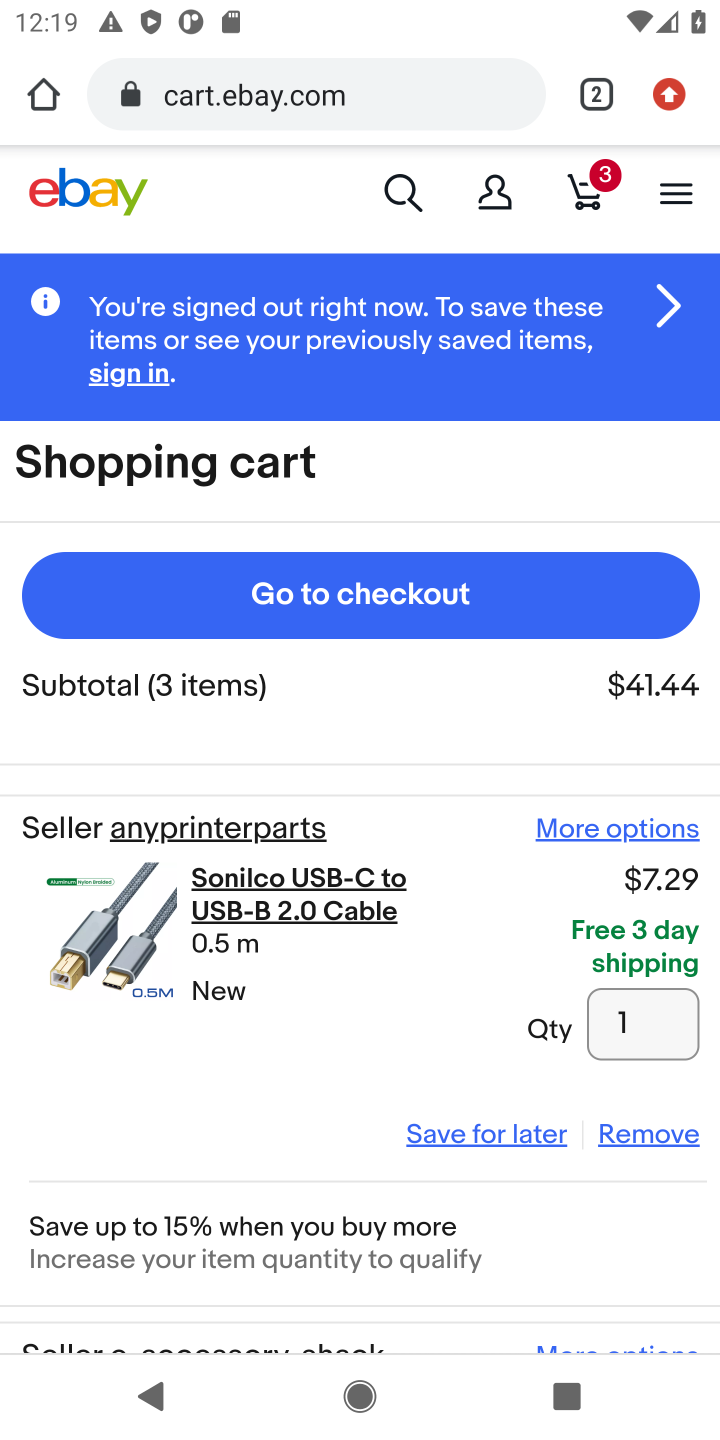
Step 30: click (359, 592)
Your task to perform on an android device: Add usb-c to usb-b to the cart on ebay, then select checkout. Image 31: 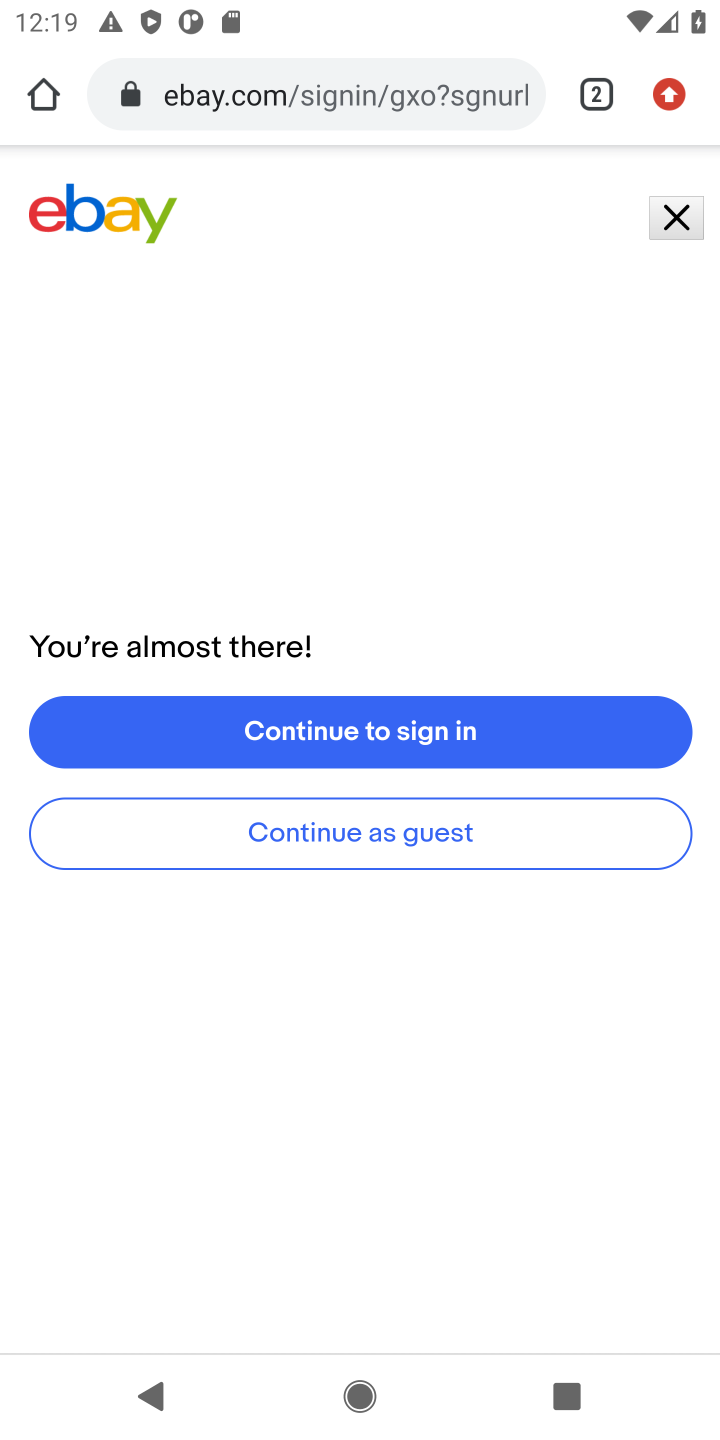
Step 31: task complete